Your task to perform on an android device: remove spam from my inbox in the gmail app Image 0: 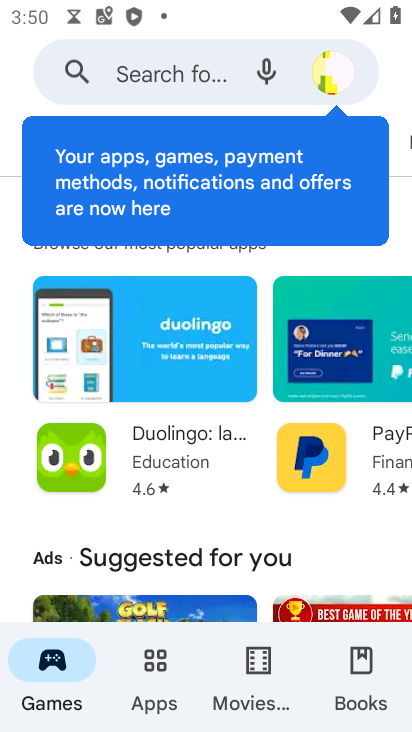
Step 0: press home button
Your task to perform on an android device: remove spam from my inbox in the gmail app Image 1: 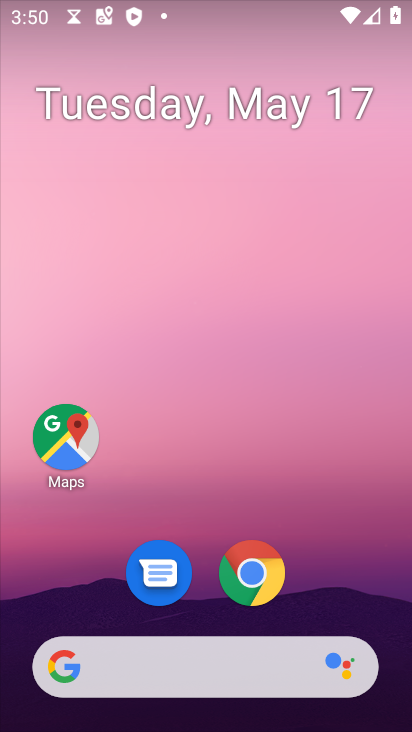
Step 1: drag from (220, 488) to (190, 35)
Your task to perform on an android device: remove spam from my inbox in the gmail app Image 2: 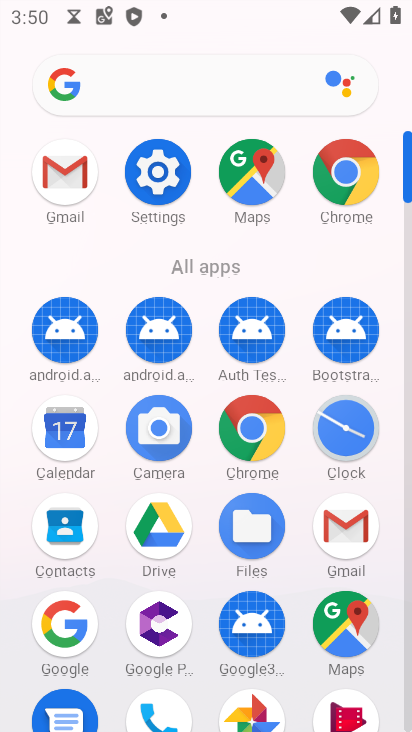
Step 2: click (70, 195)
Your task to perform on an android device: remove spam from my inbox in the gmail app Image 3: 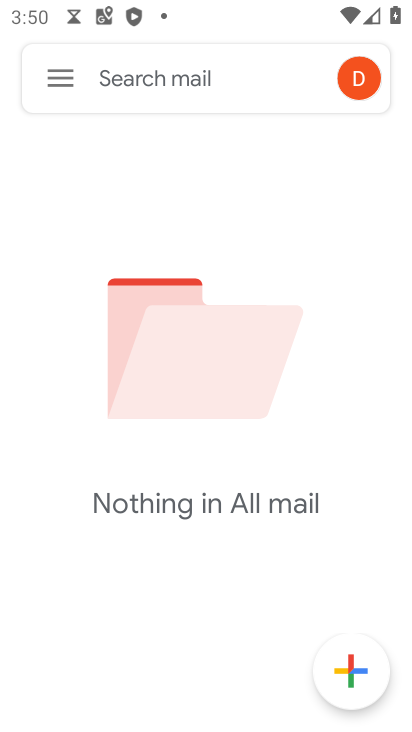
Step 3: click (62, 90)
Your task to perform on an android device: remove spam from my inbox in the gmail app Image 4: 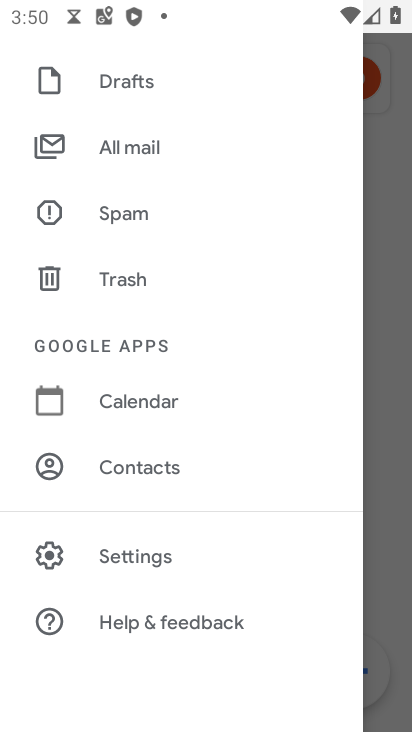
Step 4: click (168, 216)
Your task to perform on an android device: remove spam from my inbox in the gmail app Image 5: 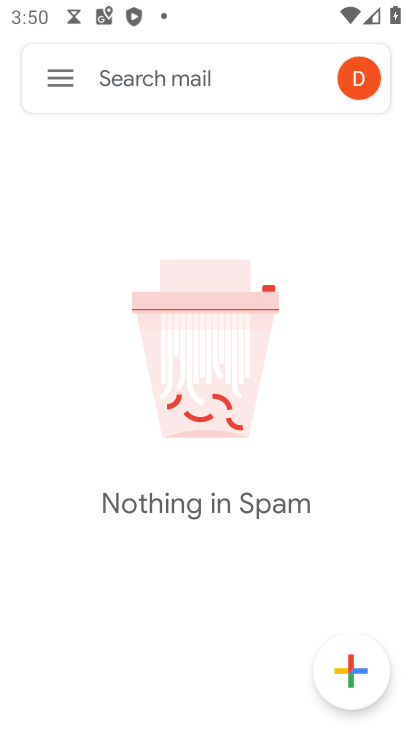
Step 5: task complete